Your task to perform on an android device: set the timer Image 0: 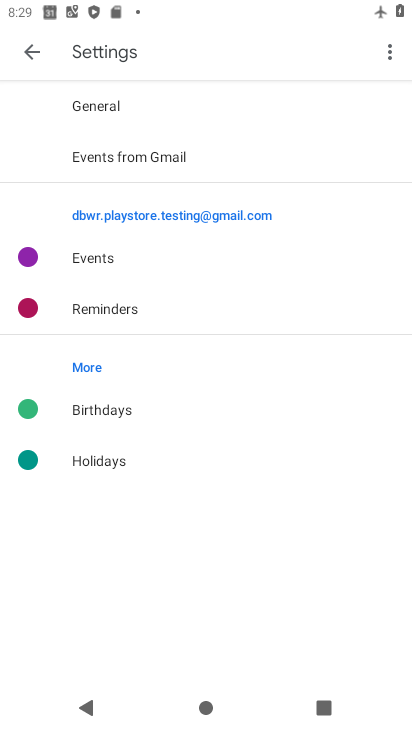
Step 0: press home button
Your task to perform on an android device: set the timer Image 1: 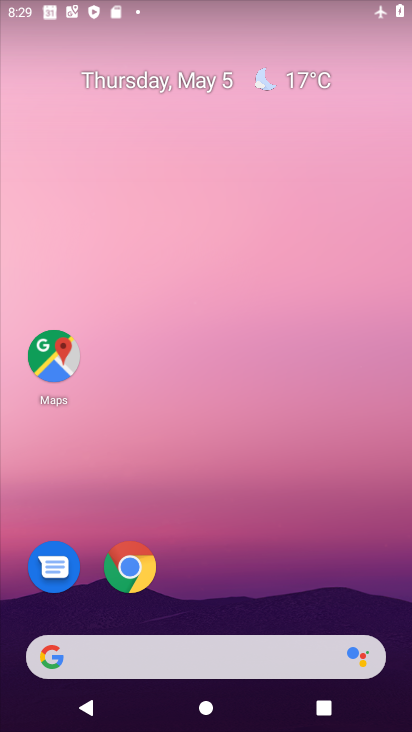
Step 1: drag from (221, 543) to (271, 94)
Your task to perform on an android device: set the timer Image 2: 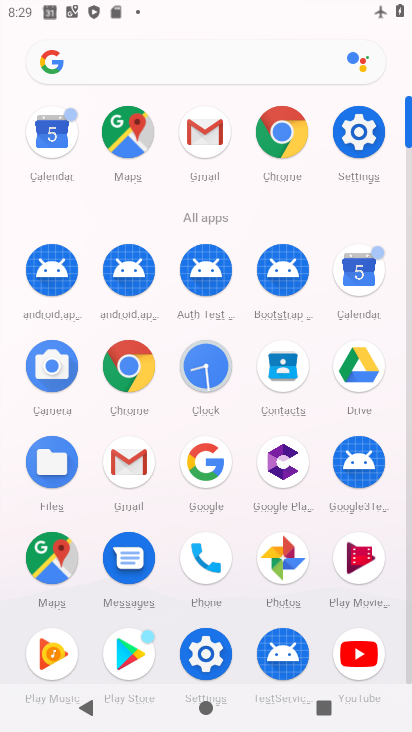
Step 2: click (206, 361)
Your task to perform on an android device: set the timer Image 3: 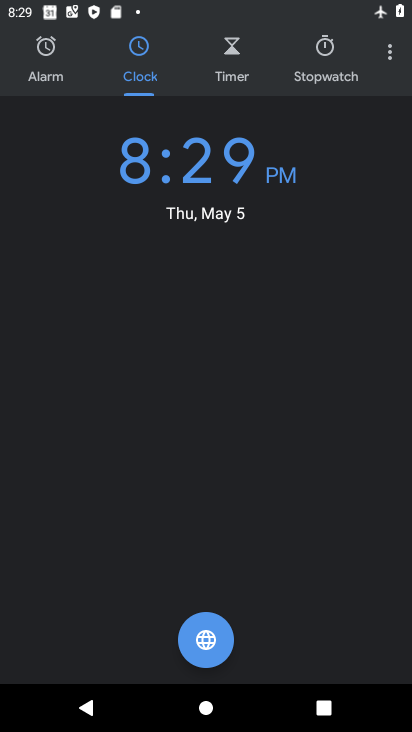
Step 3: click (390, 61)
Your task to perform on an android device: set the timer Image 4: 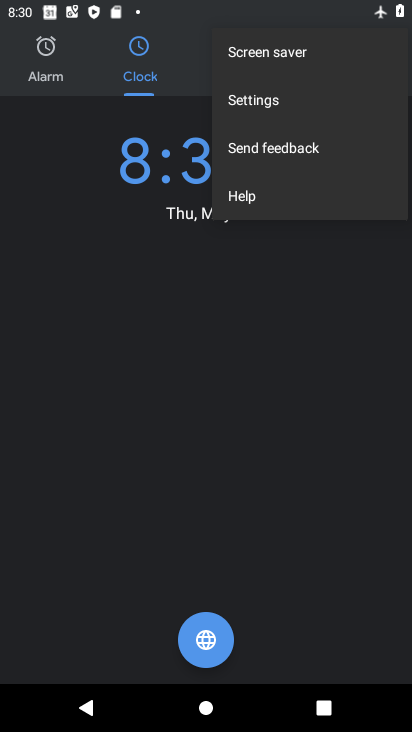
Step 4: click (338, 108)
Your task to perform on an android device: set the timer Image 5: 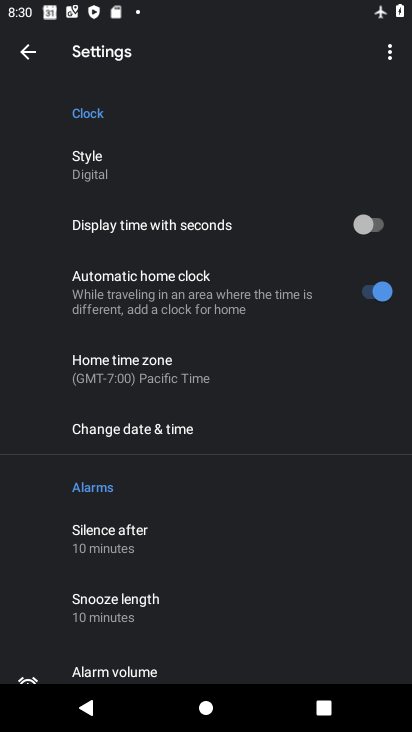
Step 5: click (30, 50)
Your task to perform on an android device: set the timer Image 6: 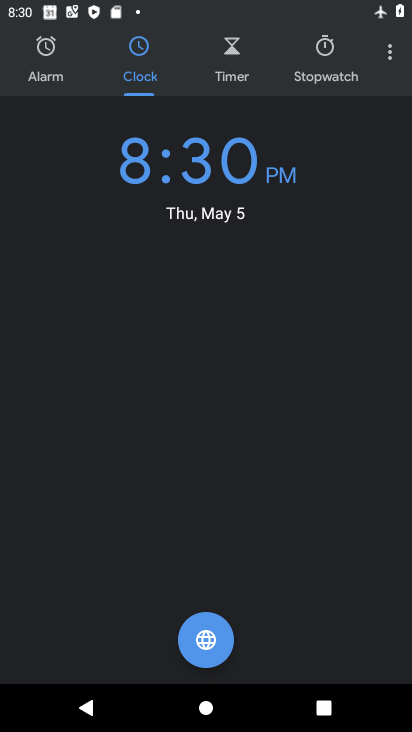
Step 6: click (229, 53)
Your task to perform on an android device: set the timer Image 7: 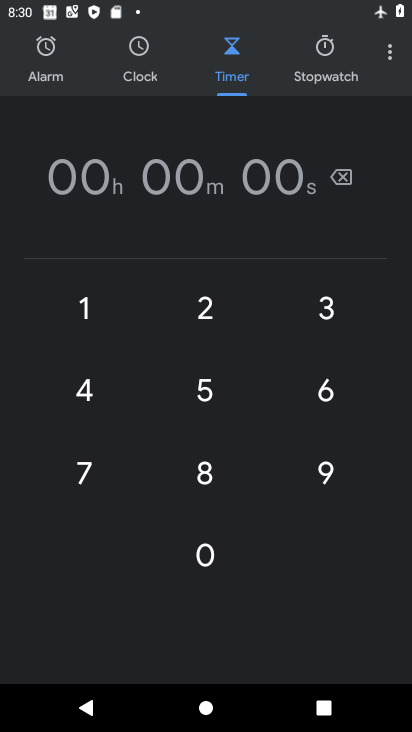
Step 7: click (86, 310)
Your task to perform on an android device: set the timer Image 8: 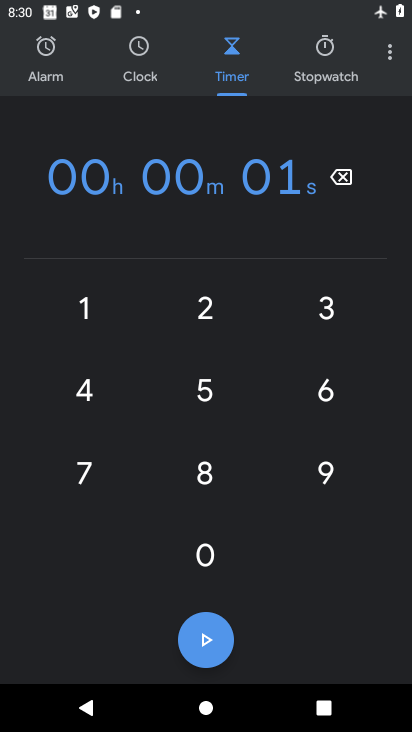
Step 8: click (86, 310)
Your task to perform on an android device: set the timer Image 9: 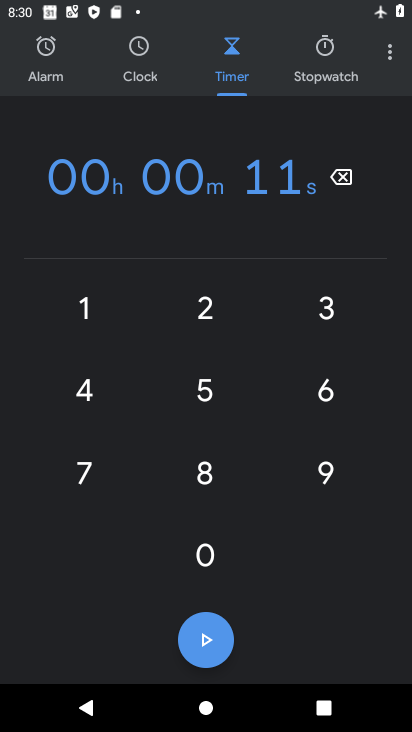
Step 9: task complete